Your task to perform on an android device: View the shopping cart on newegg. Add razer blackwidow to the cart on newegg Image 0: 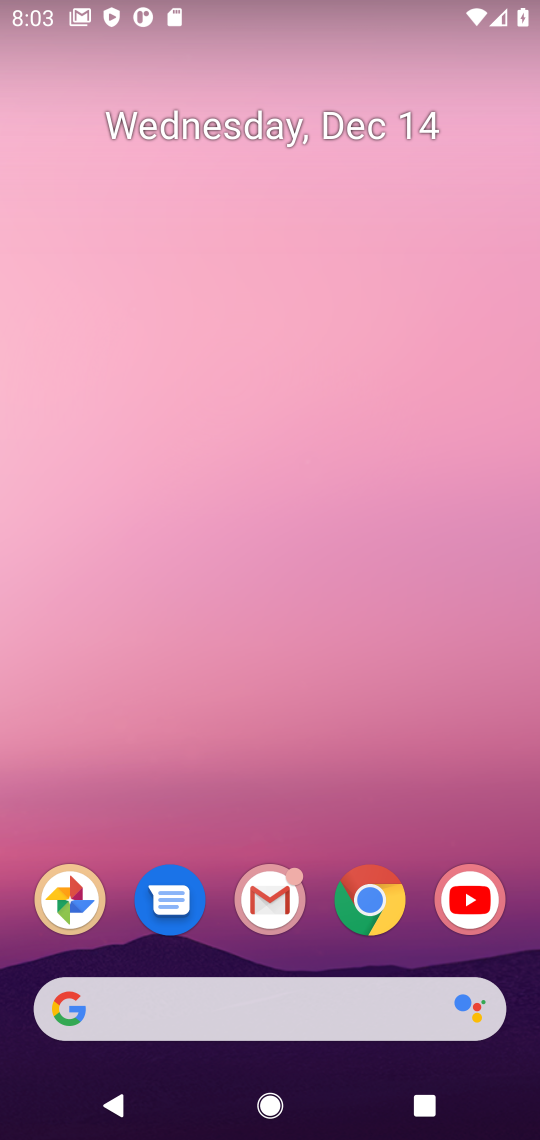
Step 0: click (365, 913)
Your task to perform on an android device: View the shopping cart on newegg. Add razer blackwidow to the cart on newegg Image 1: 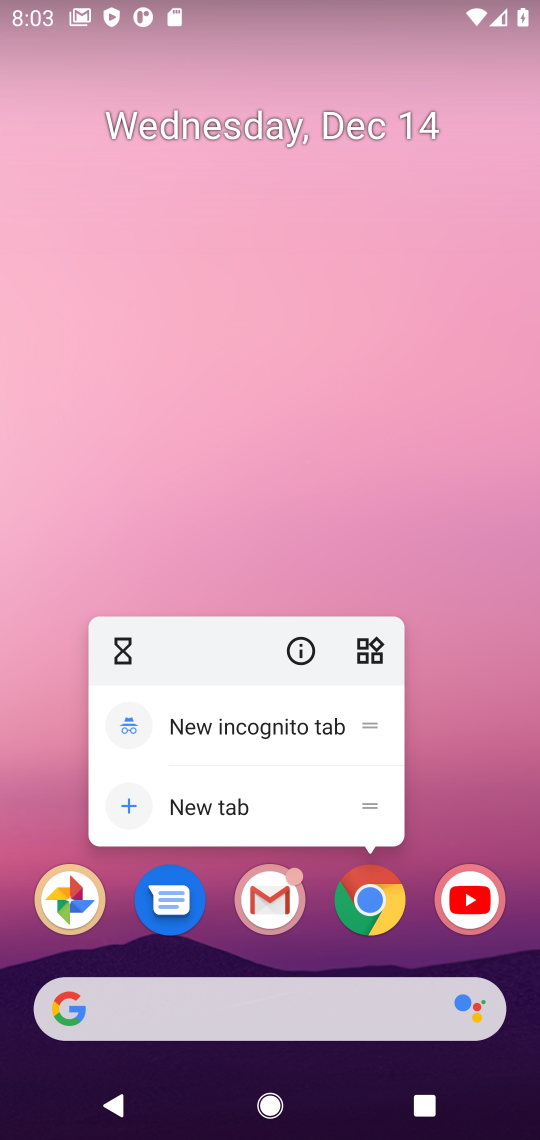
Step 1: click (374, 914)
Your task to perform on an android device: View the shopping cart on newegg. Add razer blackwidow to the cart on newegg Image 2: 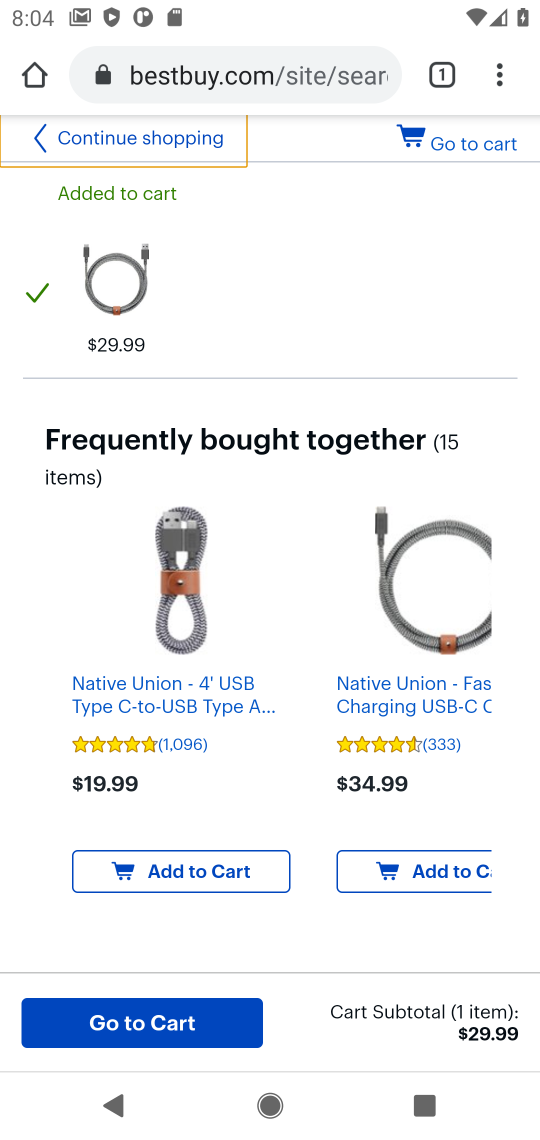
Step 2: click (234, 80)
Your task to perform on an android device: View the shopping cart on newegg. Add razer blackwidow to the cart on newegg Image 3: 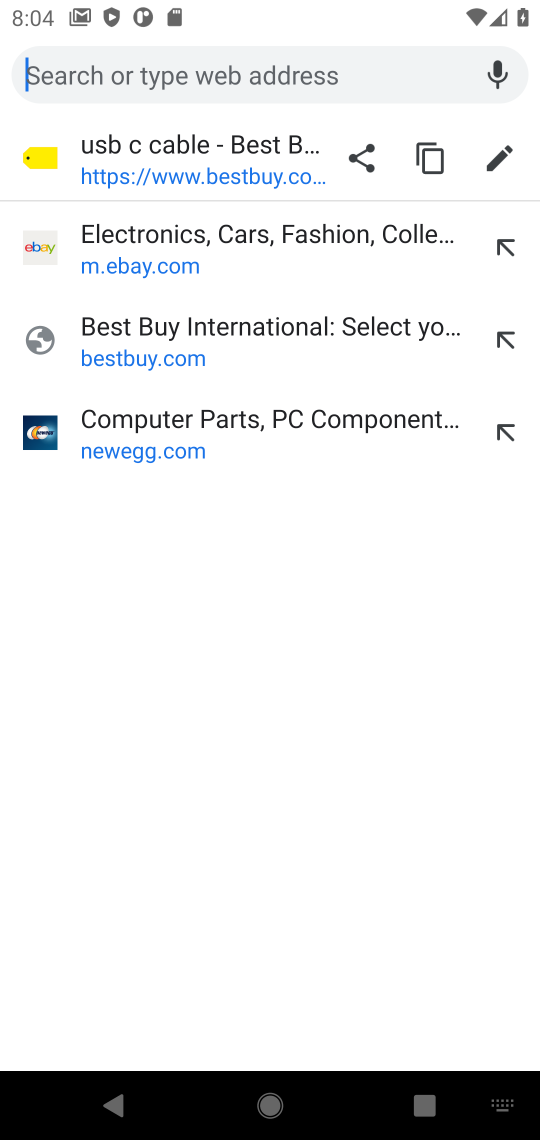
Step 3: click (173, 427)
Your task to perform on an android device: View the shopping cart on newegg. Add razer blackwidow to the cart on newegg Image 4: 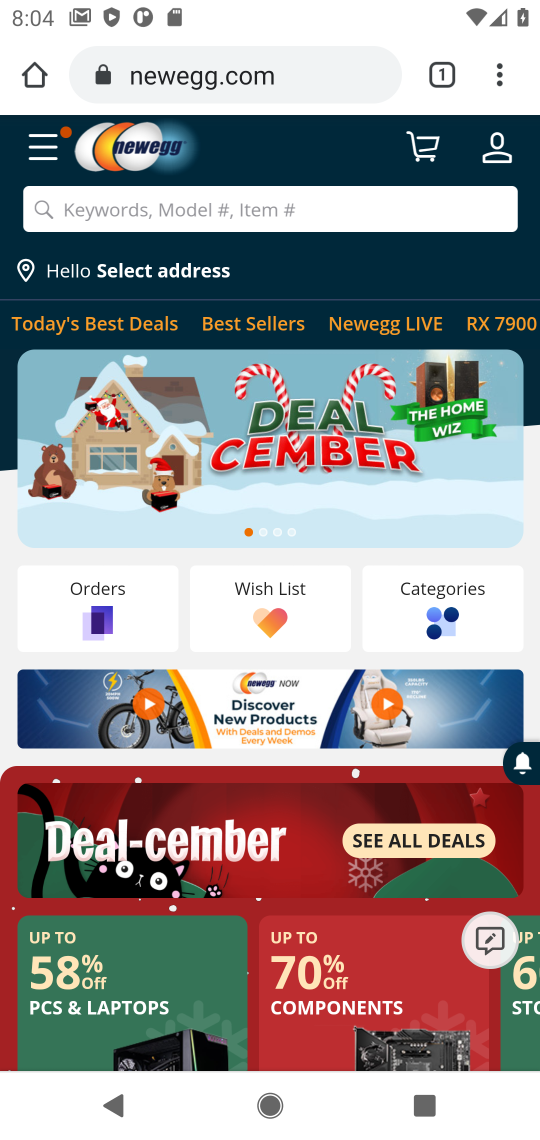
Step 4: click (422, 158)
Your task to perform on an android device: View the shopping cart on newegg. Add razer blackwidow to the cart on newegg Image 5: 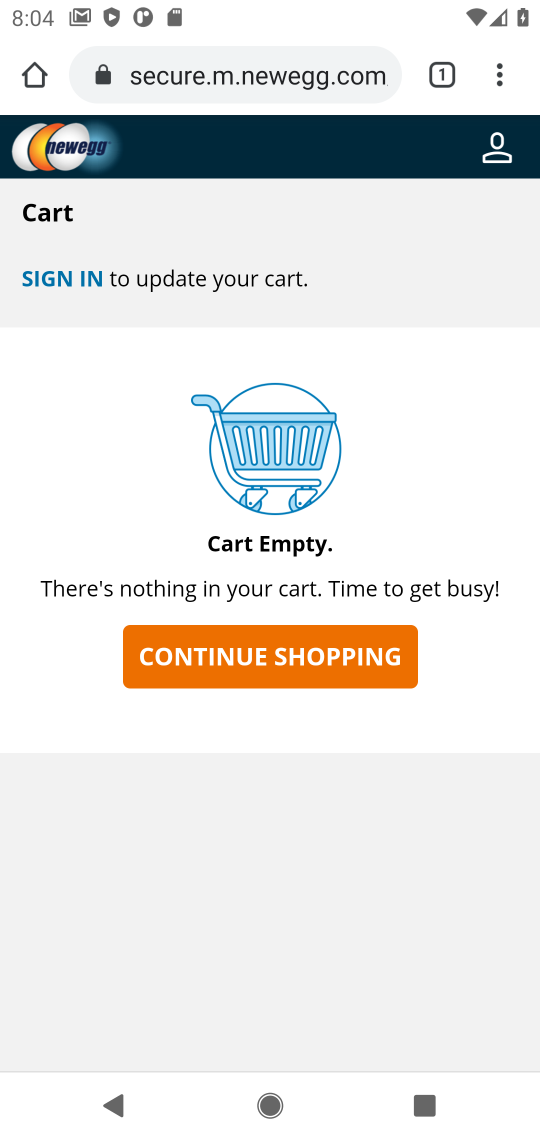
Step 5: click (239, 638)
Your task to perform on an android device: View the shopping cart on newegg. Add razer blackwidow to the cart on newegg Image 6: 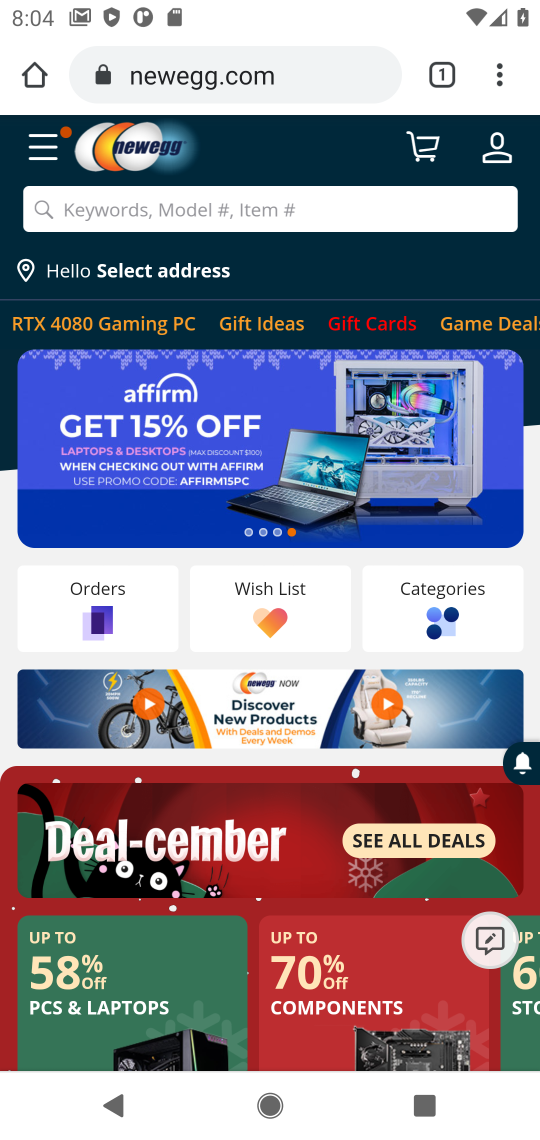
Step 6: click (227, 217)
Your task to perform on an android device: View the shopping cart on newegg. Add razer blackwidow to the cart on newegg Image 7: 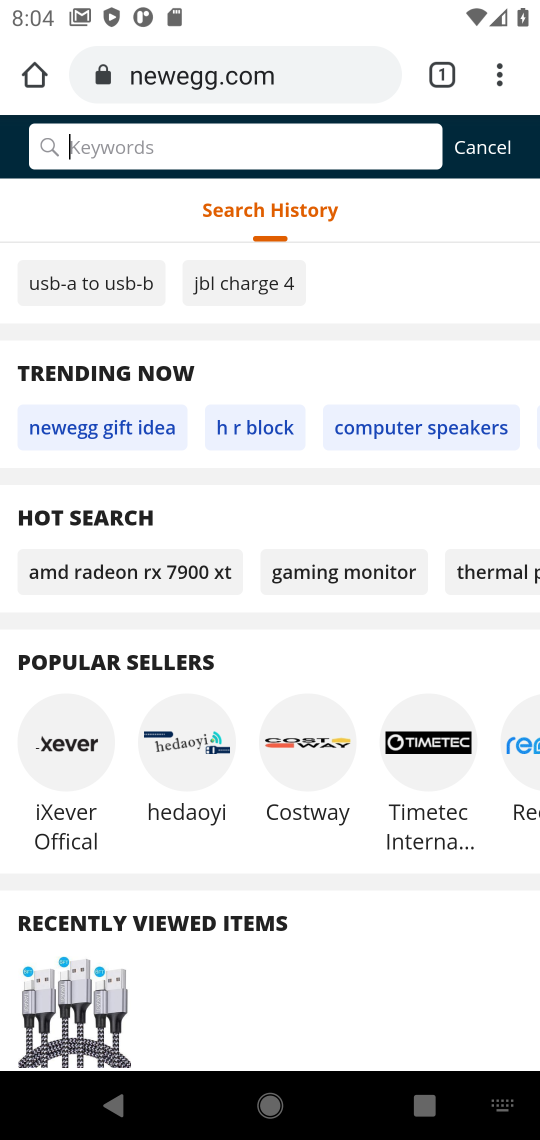
Step 7: type " razer blackwidow"
Your task to perform on an android device: View the shopping cart on newegg. Add razer blackwidow to the cart on newegg Image 8: 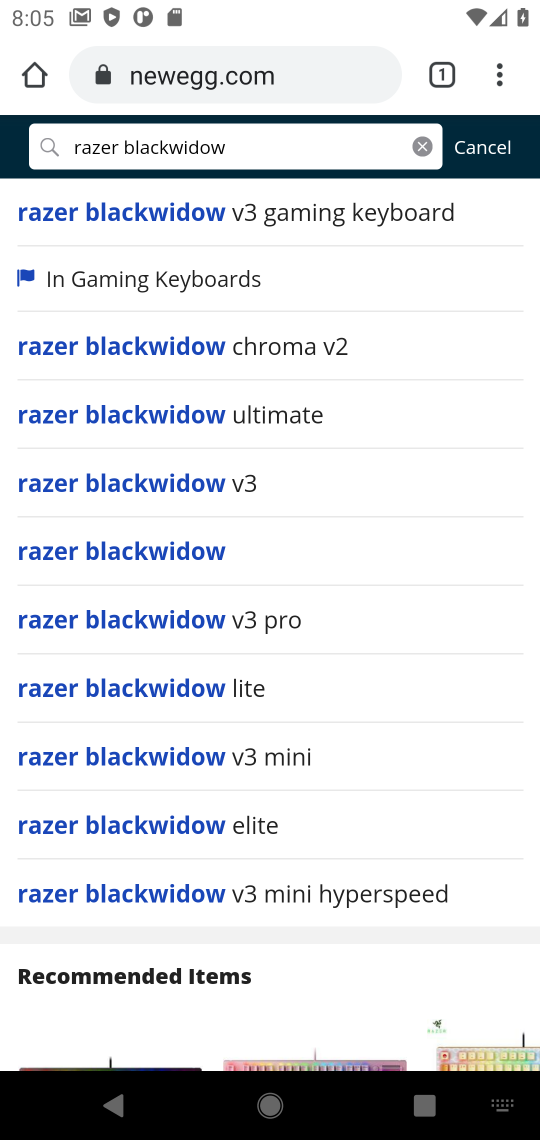
Step 8: click (119, 560)
Your task to perform on an android device: View the shopping cart on newegg. Add razer blackwidow to the cart on newegg Image 9: 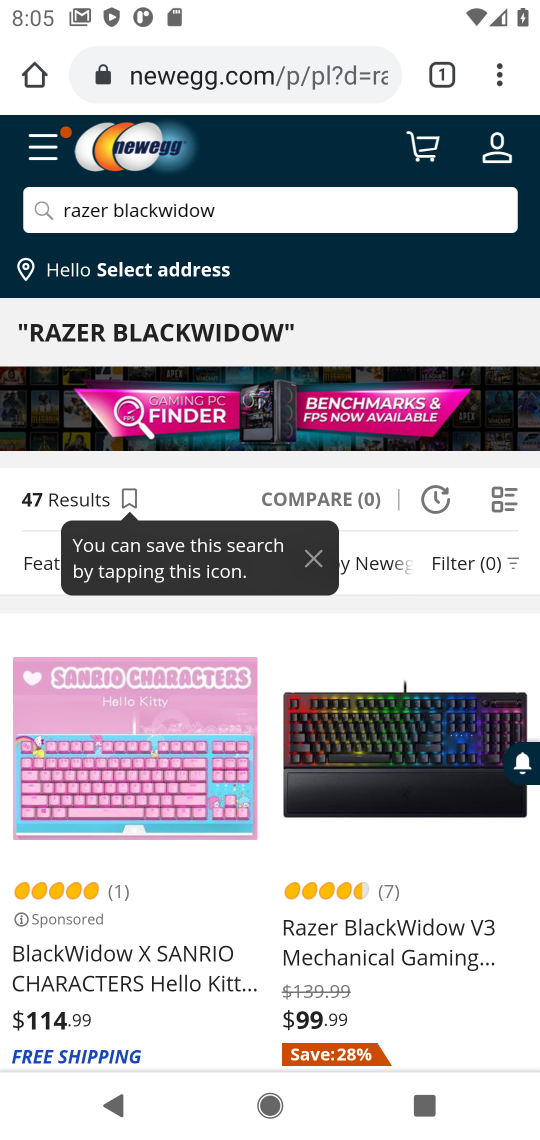
Step 9: click (362, 933)
Your task to perform on an android device: View the shopping cart on newegg. Add razer blackwidow to the cart on newegg Image 10: 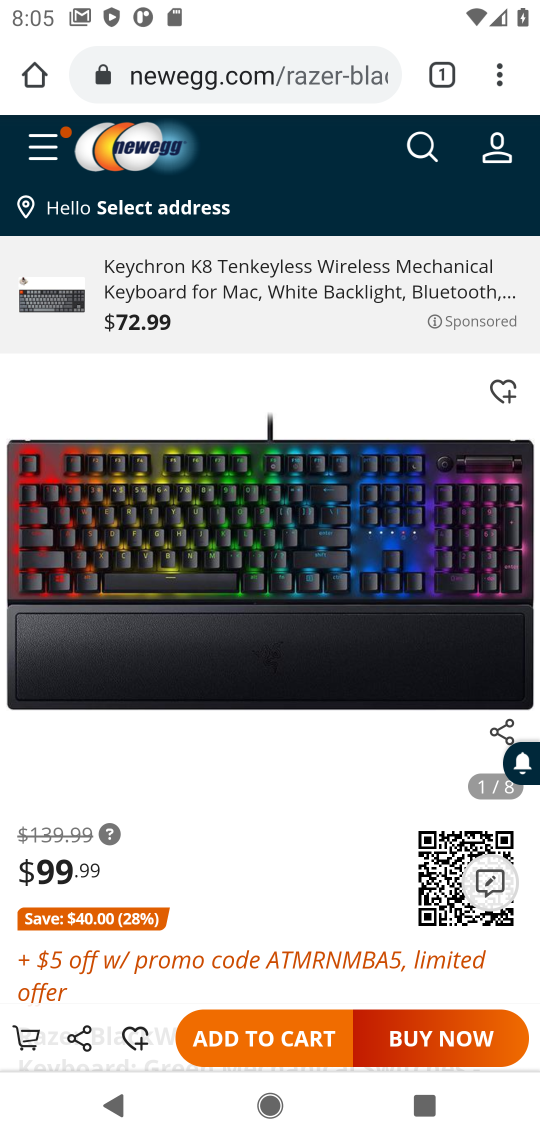
Step 10: click (253, 1030)
Your task to perform on an android device: View the shopping cart on newegg. Add razer blackwidow to the cart on newegg Image 11: 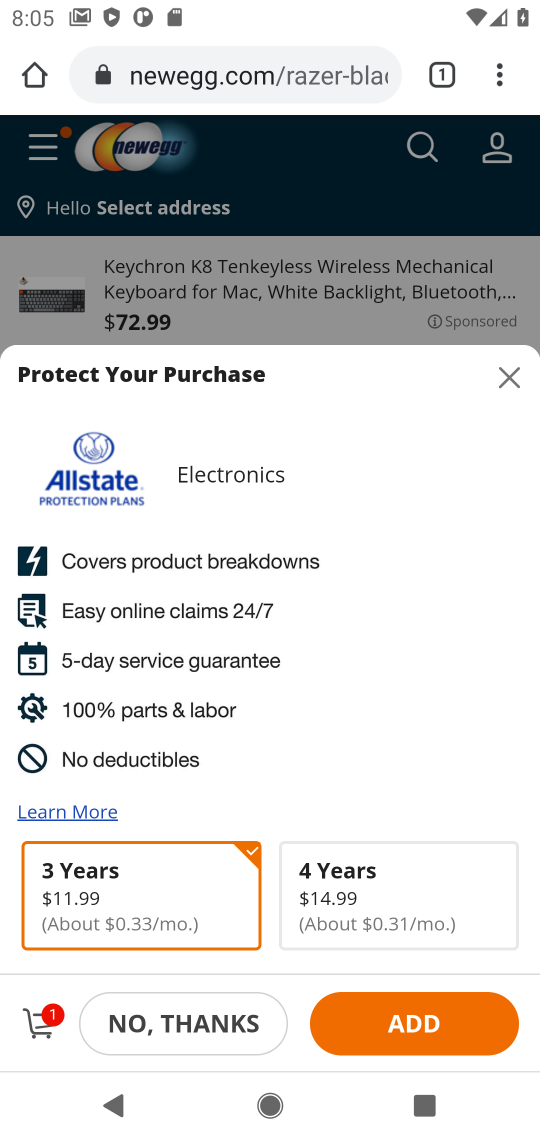
Step 11: task complete